Your task to perform on an android device: clear history in the chrome app Image 0: 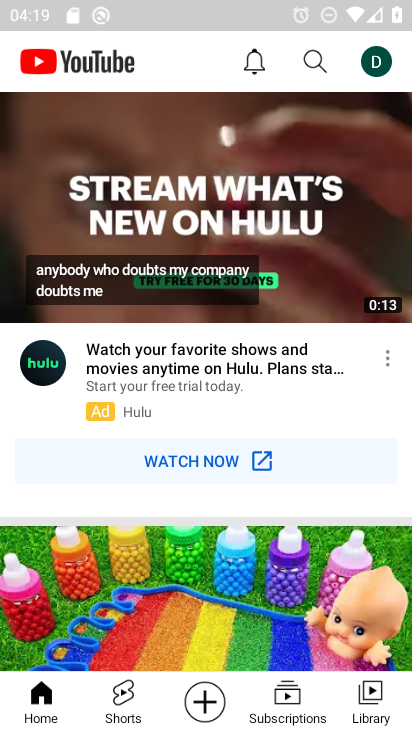
Step 0: press home button
Your task to perform on an android device: clear history in the chrome app Image 1: 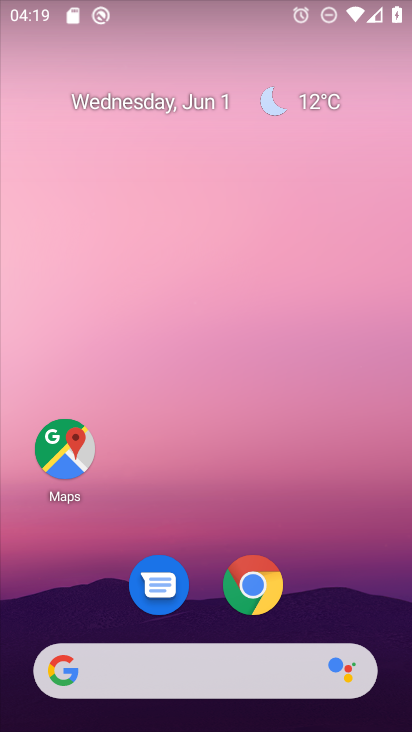
Step 1: click (259, 586)
Your task to perform on an android device: clear history in the chrome app Image 2: 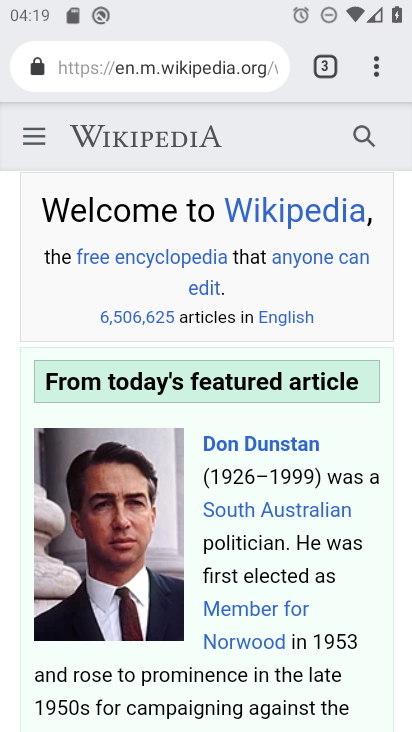
Step 2: click (377, 69)
Your task to perform on an android device: clear history in the chrome app Image 3: 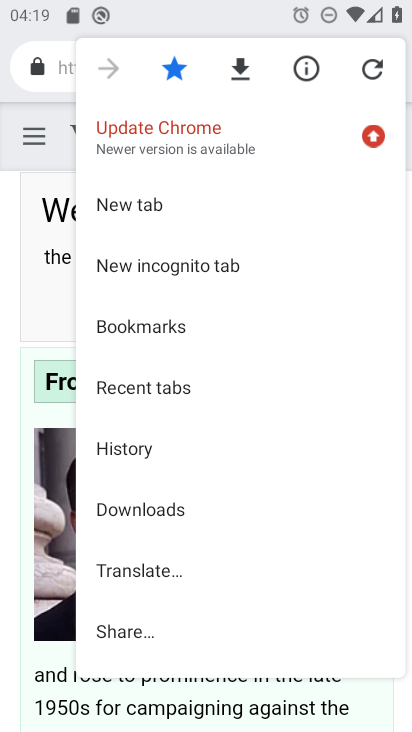
Step 3: click (141, 444)
Your task to perform on an android device: clear history in the chrome app Image 4: 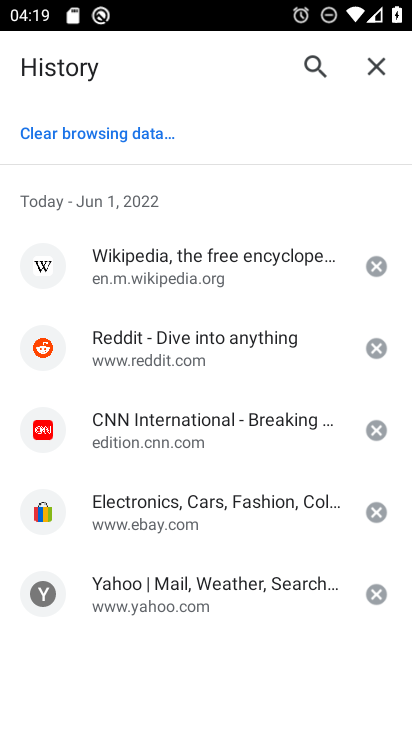
Step 4: click (125, 126)
Your task to perform on an android device: clear history in the chrome app Image 5: 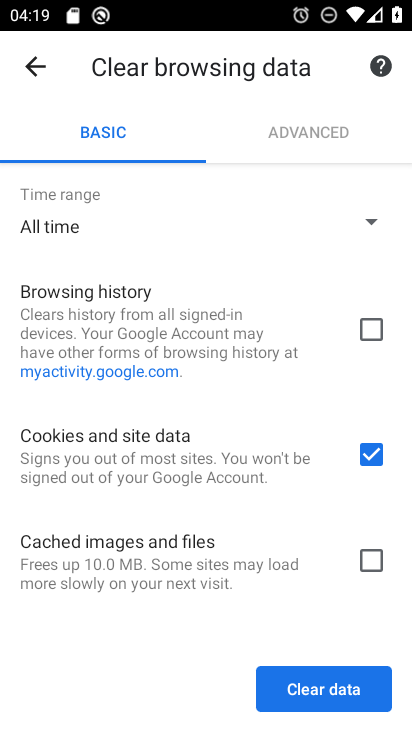
Step 5: click (376, 325)
Your task to perform on an android device: clear history in the chrome app Image 6: 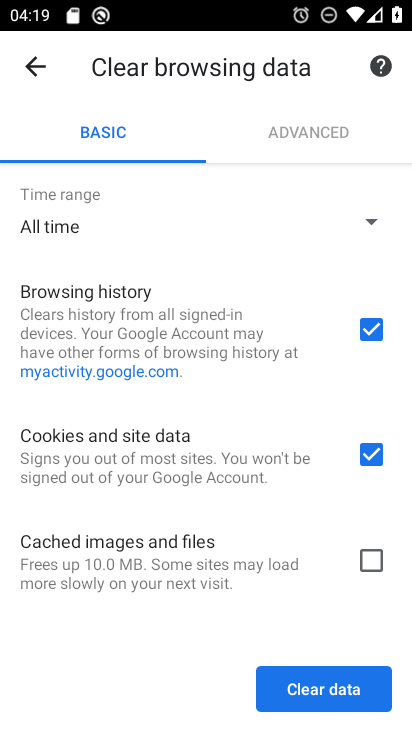
Step 6: click (370, 554)
Your task to perform on an android device: clear history in the chrome app Image 7: 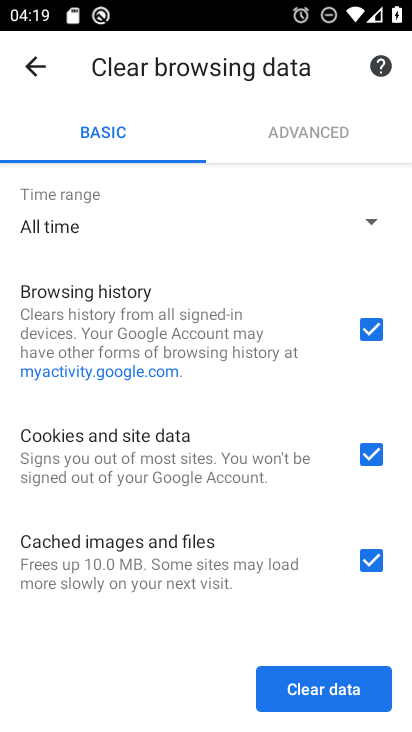
Step 7: click (352, 700)
Your task to perform on an android device: clear history in the chrome app Image 8: 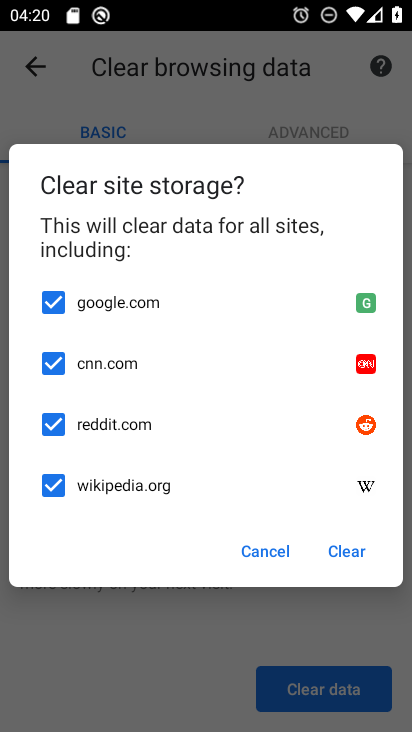
Step 8: click (355, 547)
Your task to perform on an android device: clear history in the chrome app Image 9: 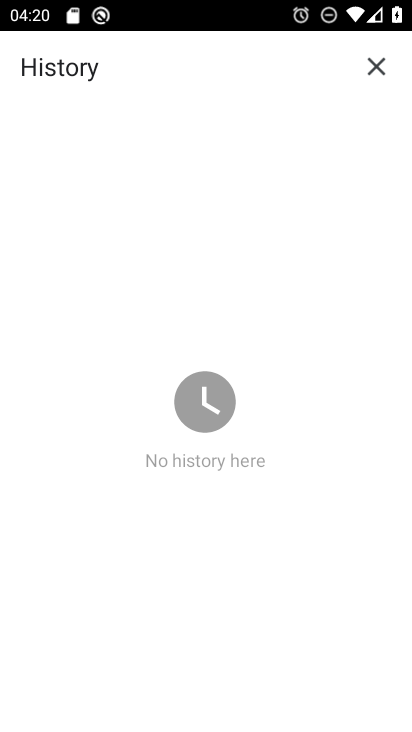
Step 9: task complete